Your task to perform on an android device: choose inbox layout in the gmail app Image 0: 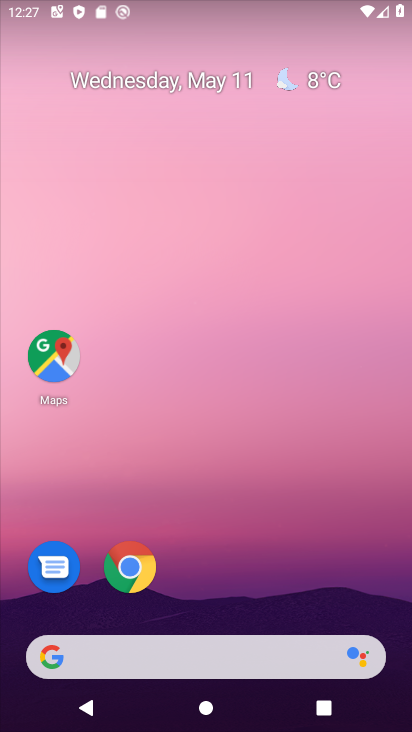
Step 0: drag from (204, 577) to (350, 151)
Your task to perform on an android device: choose inbox layout in the gmail app Image 1: 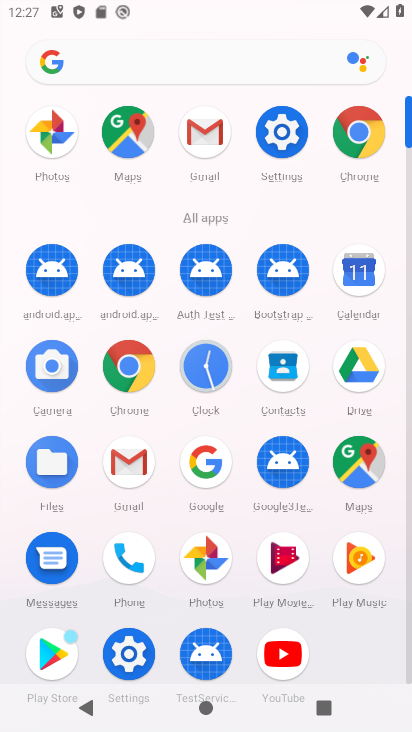
Step 1: click (219, 143)
Your task to perform on an android device: choose inbox layout in the gmail app Image 2: 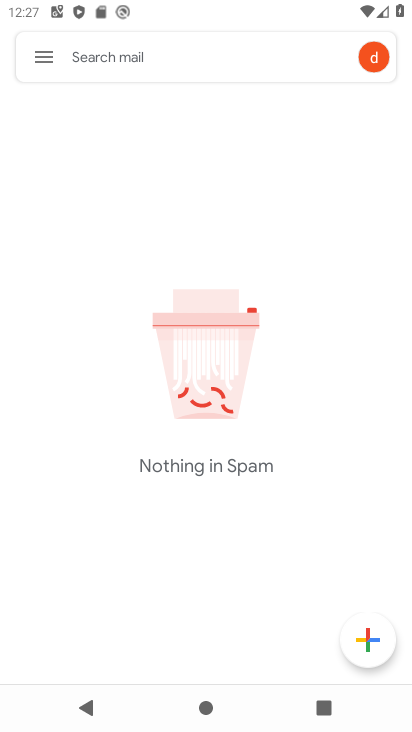
Step 2: click (38, 52)
Your task to perform on an android device: choose inbox layout in the gmail app Image 3: 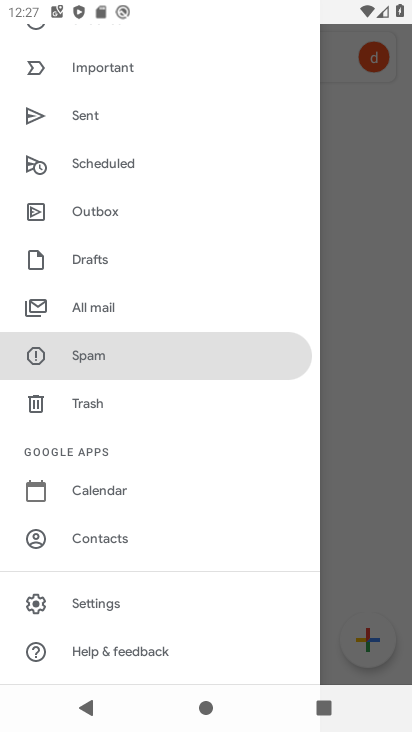
Step 3: drag from (95, 606) to (156, 424)
Your task to perform on an android device: choose inbox layout in the gmail app Image 4: 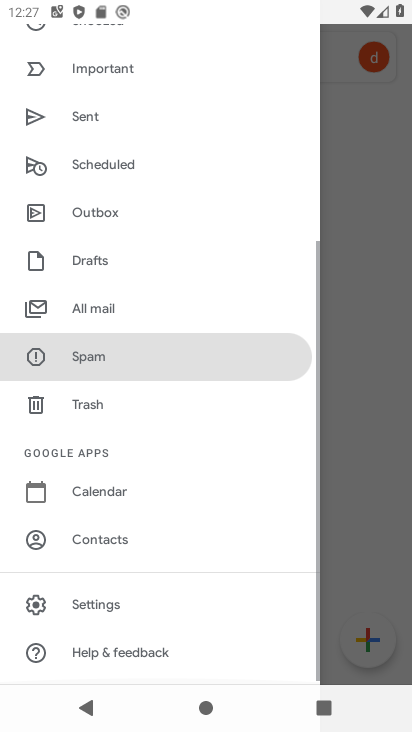
Step 4: click (143, 603)
Your task to perform on an android device: choose inbox layout in the gmail app Image 5: 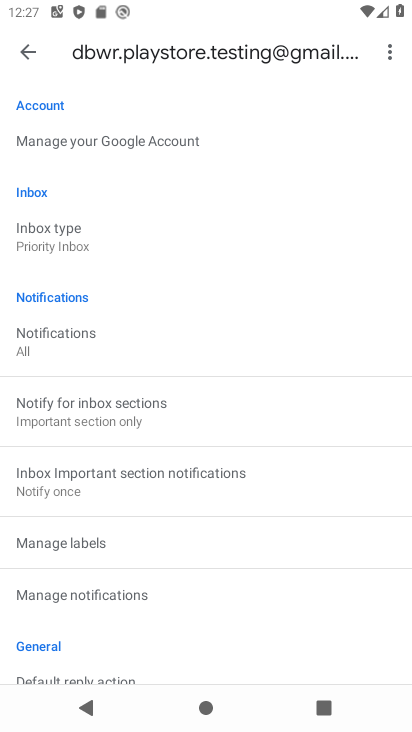
Step 5: click (182, 225)
Your task to perform on an android device: choose inbox layout in the gmail app Image 6: 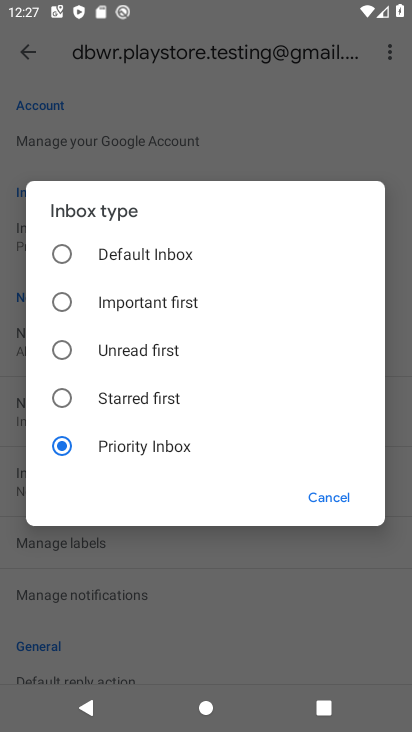
Step 6: click (192, 307)
Your task to perform on an android device: choose inbox layout in the gmail app Image 7: 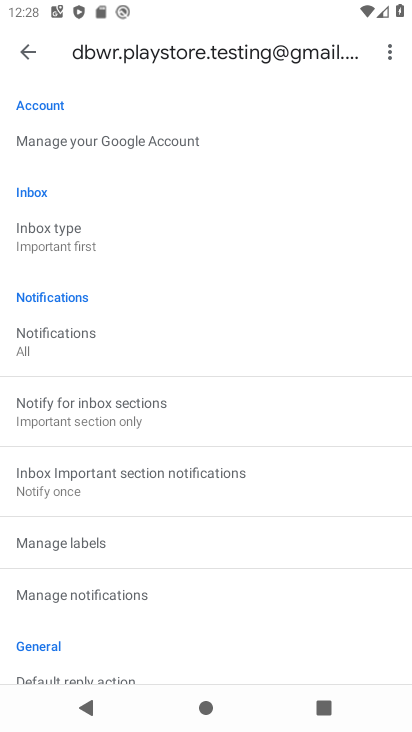
Step 7: task complete